Your task to perform on an android device: open the mobile data screen to see how much data has been used Image 0: 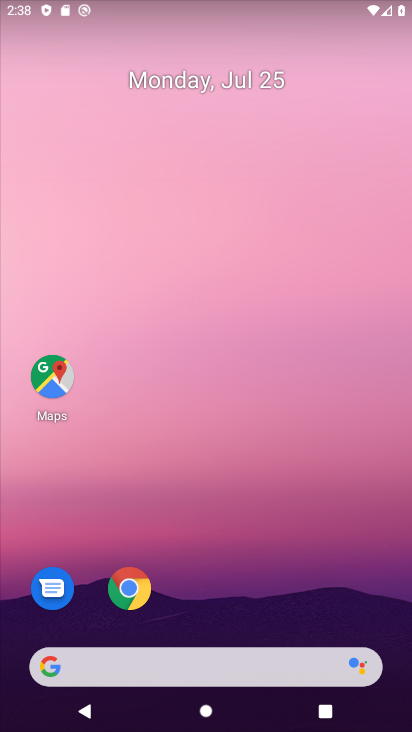
Step 0: click (317, 153)
Your task to perform on an android device: open the mobile data screen to see how much data has been used Image 1: 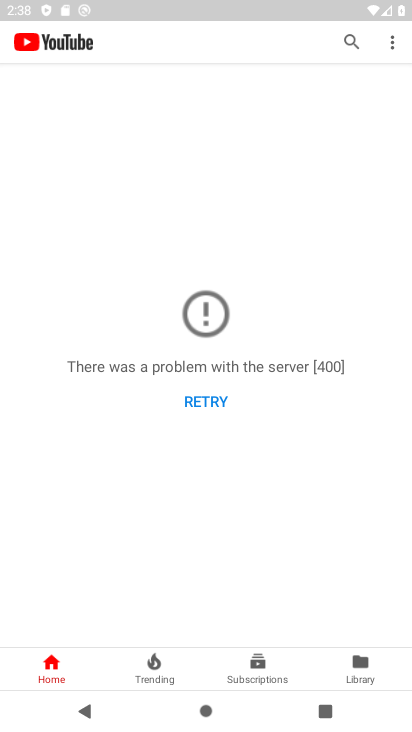
Step 1: press home button
Your task to perform on an android device: open the mobile data screen to see how much data has been used Image 2: 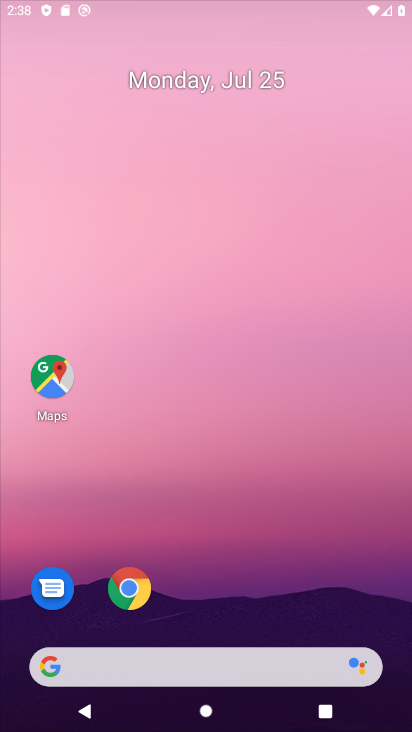
Step 2: drag from (249, 624) to (266, 256)
Your task to perform on an android device: open the mobile data screen to see how much data has been used Image 3: 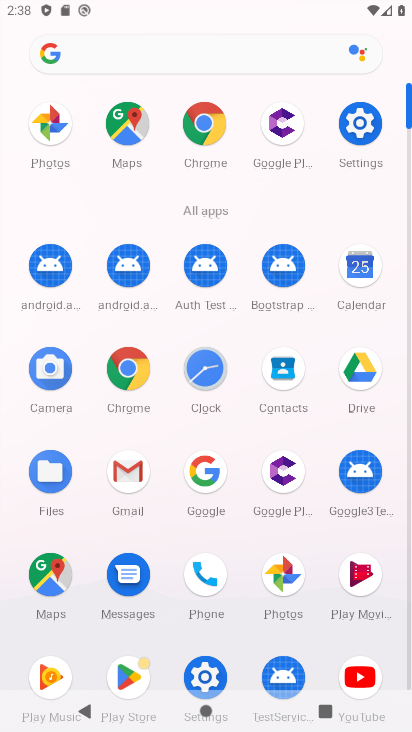
Step 3: click (373, 108)
Your task to perform on an android device: open the mobile data screen to see how much data has been used Image 4: 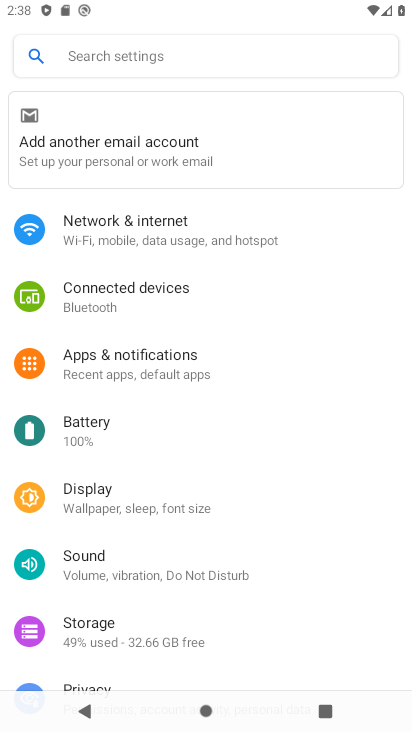
Step 4: click (177, 362)
Your task to perform on an android device: open the mobile data screen to see how much data has been used Image 5: 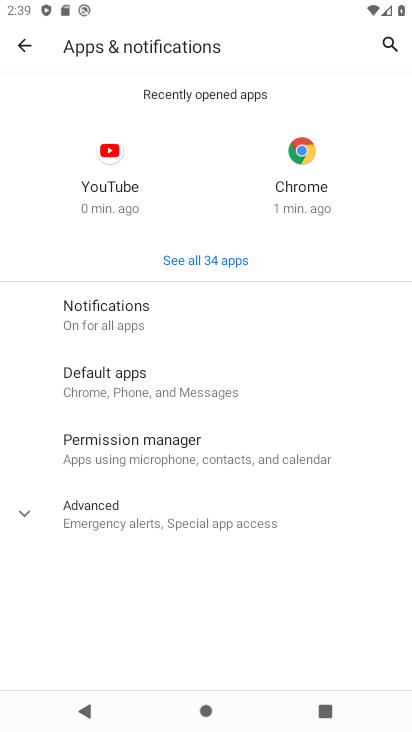
Step 5: click (21, 49)
Your task to perform on an android device: open the mobile data screen to see how much data has been used Image 6: 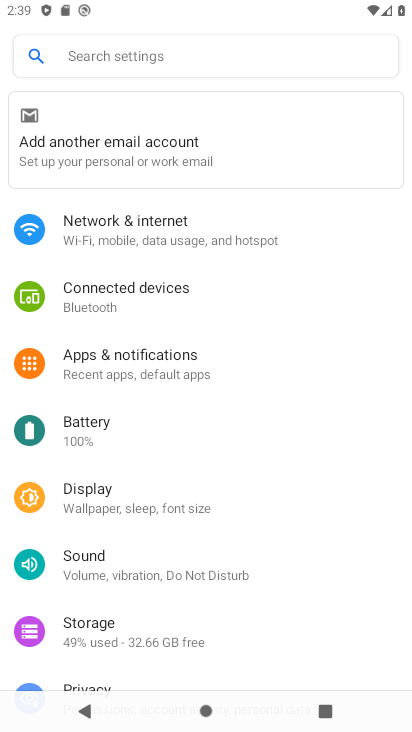
Step 6: click (165, 216)
Your task to perform on an android device: open the mobile data screen to see how much data has been used Image 7: 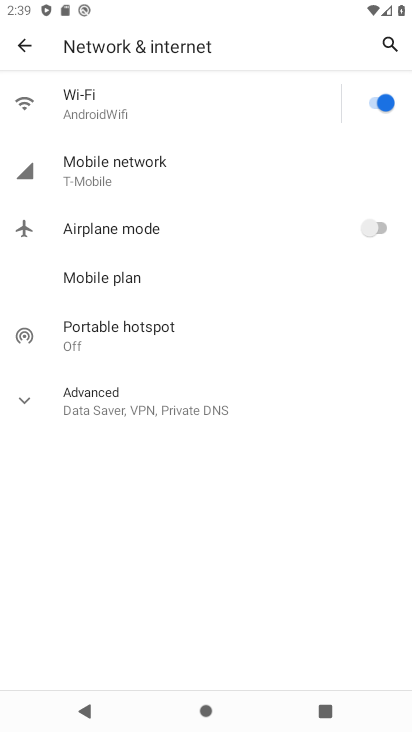
Step 7: click (136, 166)
Your task to perform on an android device: open the mobile data screen to see how much data has been used Image 8: 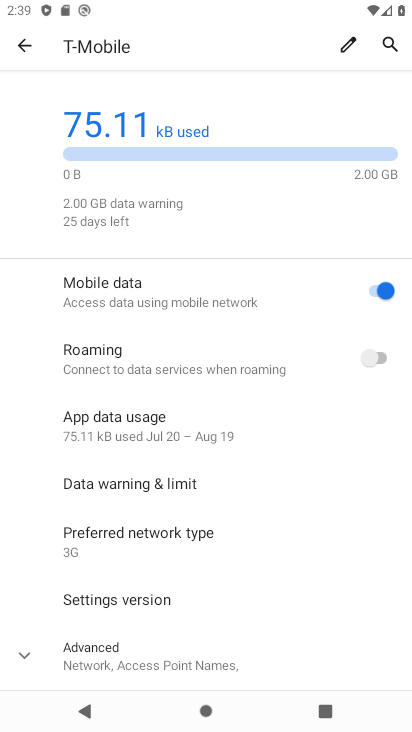
Step 8: click (159, 428)
Your task to perform on an android device: open the mobile data screen to see how much data has been used Image 9: 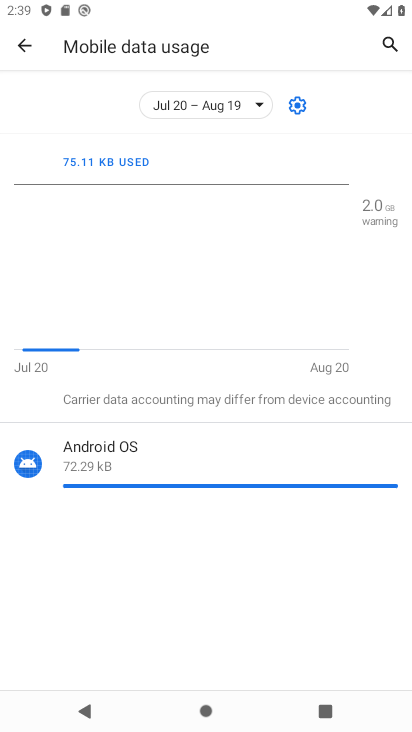
Step 9: task complete